Your task to perform on an android device: Open the calendar app, open the side menu, and click the "Day" option Image 0: 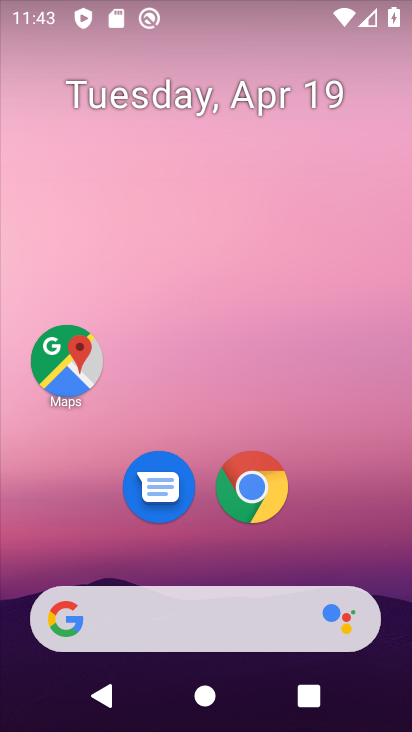
Step 0: drag from (363, 547) to (201, 114)
Your task to perform on an android device: Open the calendar app, open the side menu, and click the "Day" option Image 1: 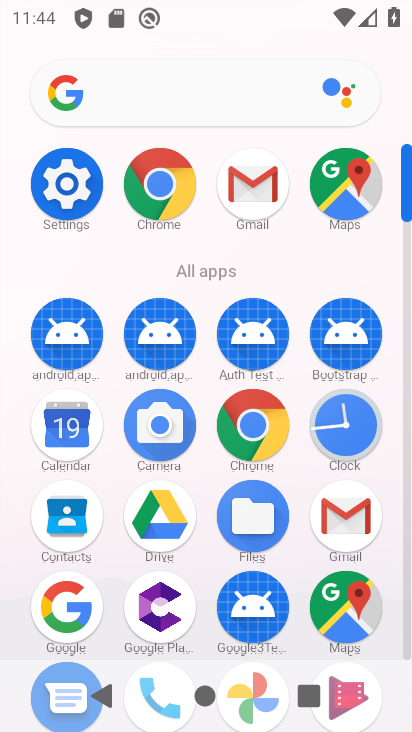
Step 1: click (64, 429)
Your task to perform on an android device: Open the calendar app, open the side menu, and click the "Day" option Image 2: 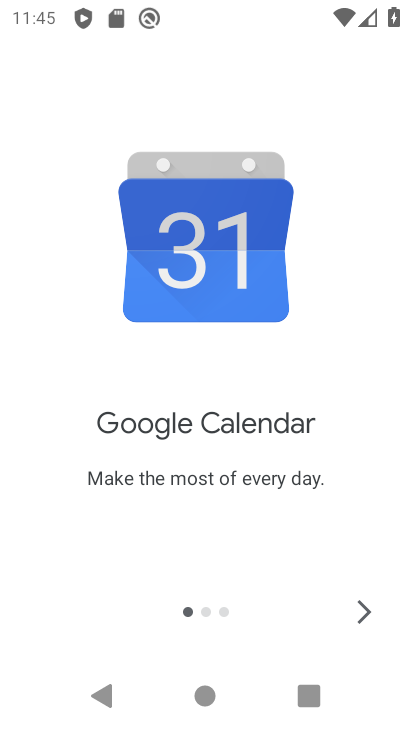
Step 2: click (368, 603)
Your task to perform on an android device: Open the calendar app, open the side menu, and click the "Day" option Image 3: 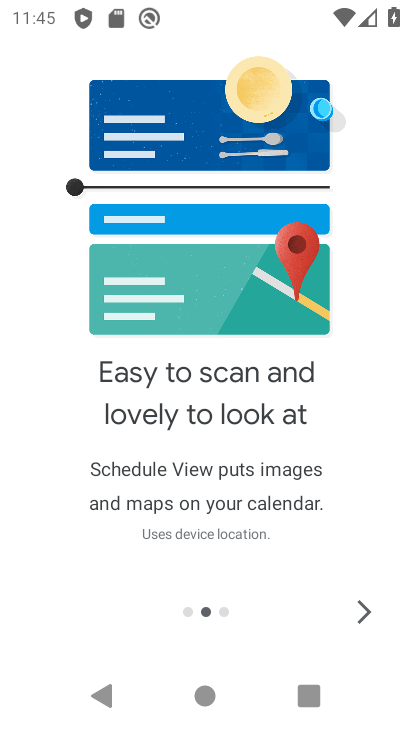
Step 3: click (368, 603)
Your task to perform on an android device: Open the calendar app, open the side menu, and click the "Day" option Image 4: 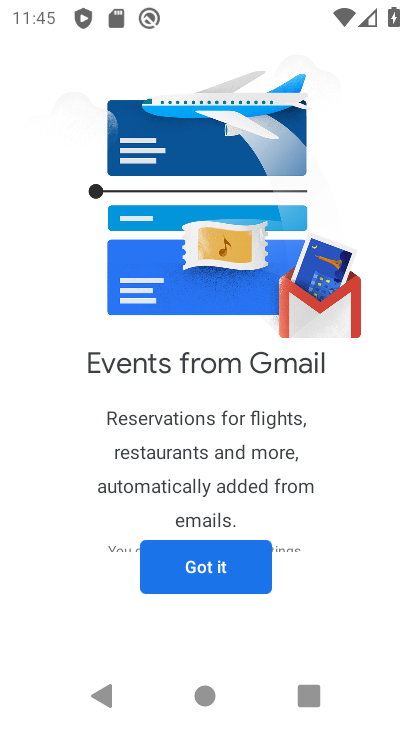
Step 4: click (212, 579)
Your task to perform on an android device: Open the calendar app, open the side menu, and click the "Day" option Image 5: 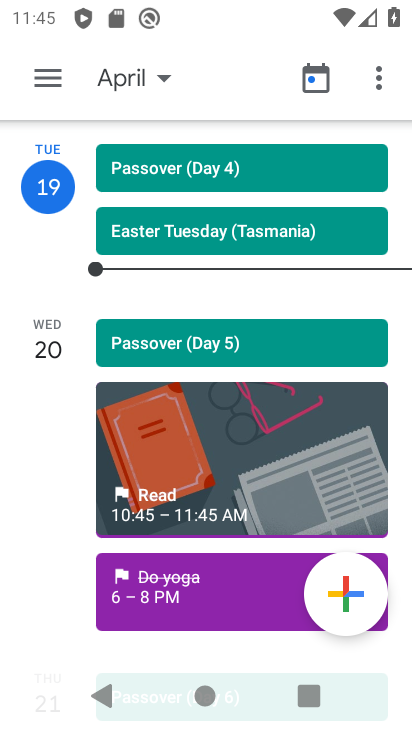
Step 5: click (29, 74)
Your task to perform on an android device: Open the calendar app, open the side menu, and click the "Day" option Image 6: 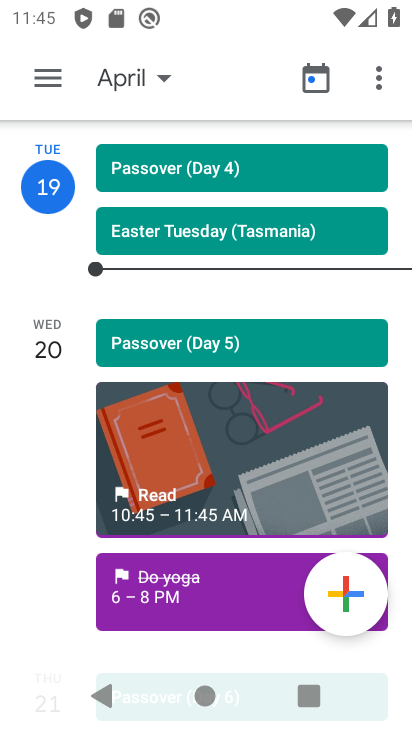
Step 6: click (37, 77)
Your task to perform on an android device: Open the calendar app, open the side menu, and click the "Day" option Image 7: 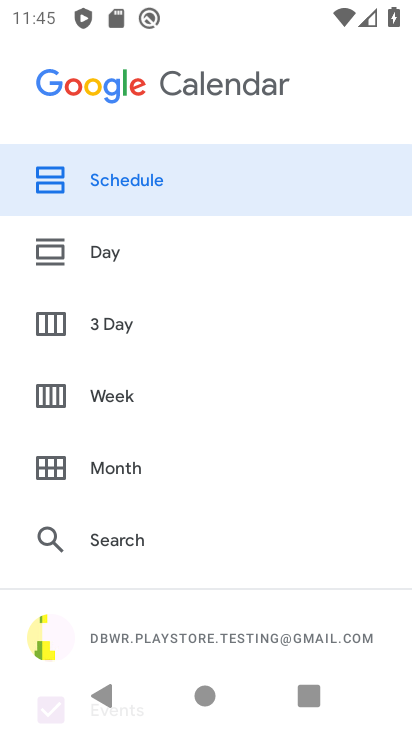
Step 7: click (169, 254)
Your task to perform on an android device: Open the calendar app, open the side menu, and click the "Day" option Image 8: 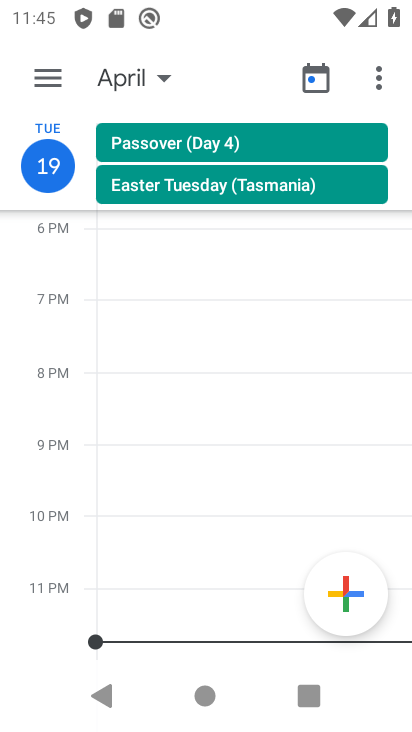
Step 8: task complete